Your task to perform on an android device: set the stopwatch Image 0: 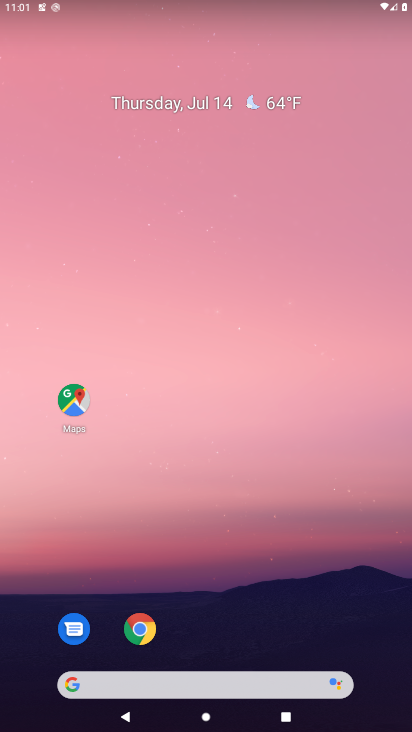
Step 0: click (259, 249)
Your task to perform on an android device: set the stopwatch Image 1: 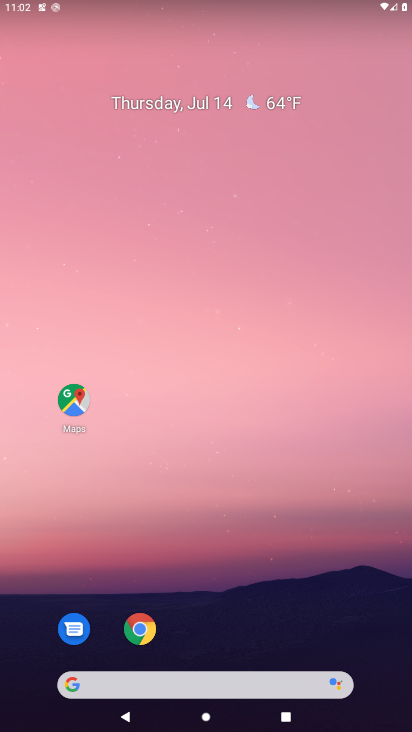
Step 1: drag from (159, 674) to (208, 136)
Your task to perform on an android device: set the stopwatch Image 2: 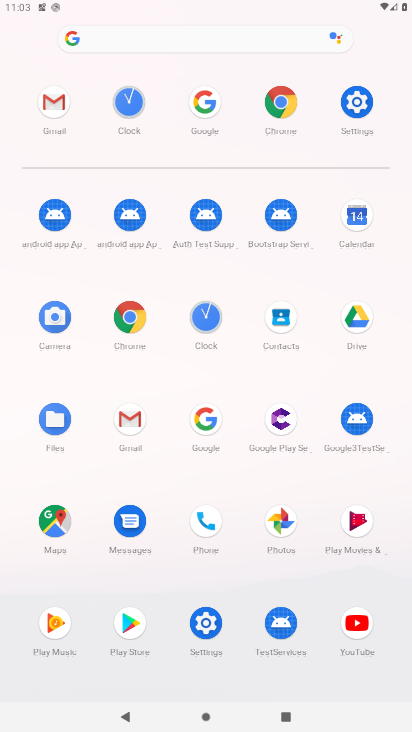
Step 2: click (203, 316)
Your task to perform on an android device: set the stopwatch Image 3: 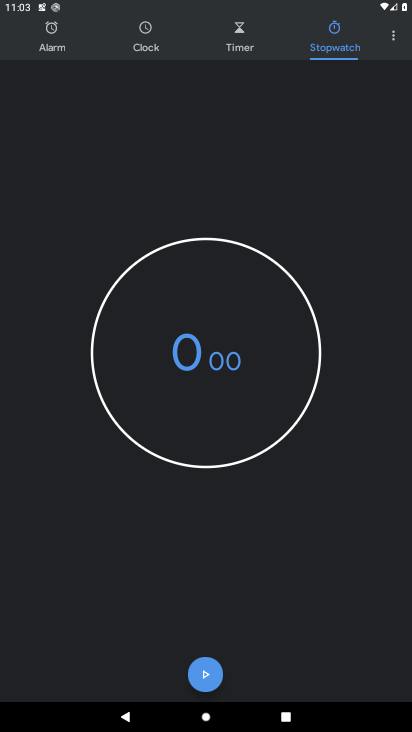
Step 3: click (211, 671)
Your task to perform on an android device: set the stopwatch Image 4: 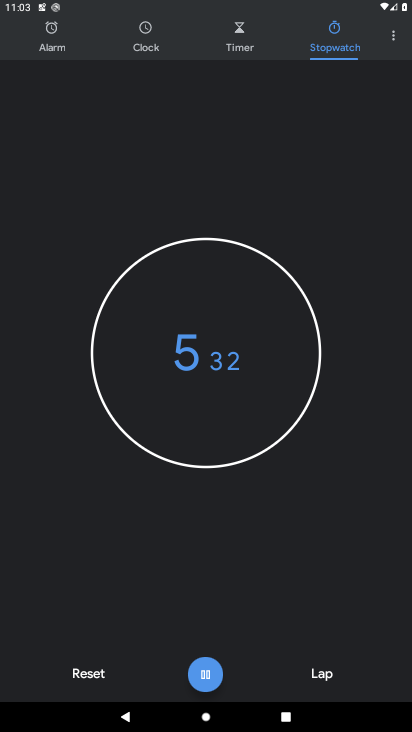
Step 4: click (211, 671)
Your task to perform on an android device: set the stopwatch Image 5: 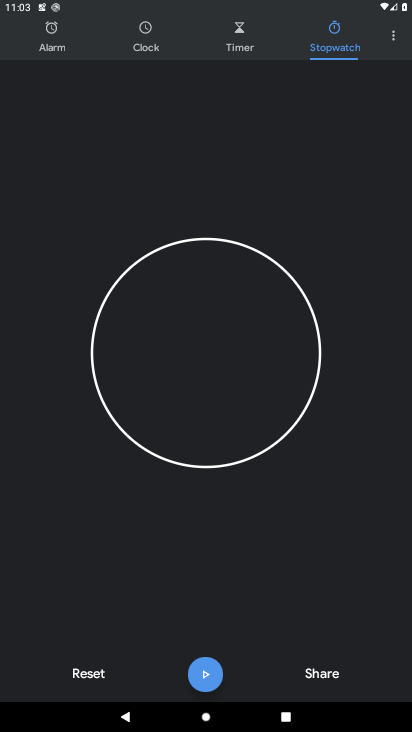
Step 5: task complete